Your task to perform on an android device: Open ESPN.com Image 0: 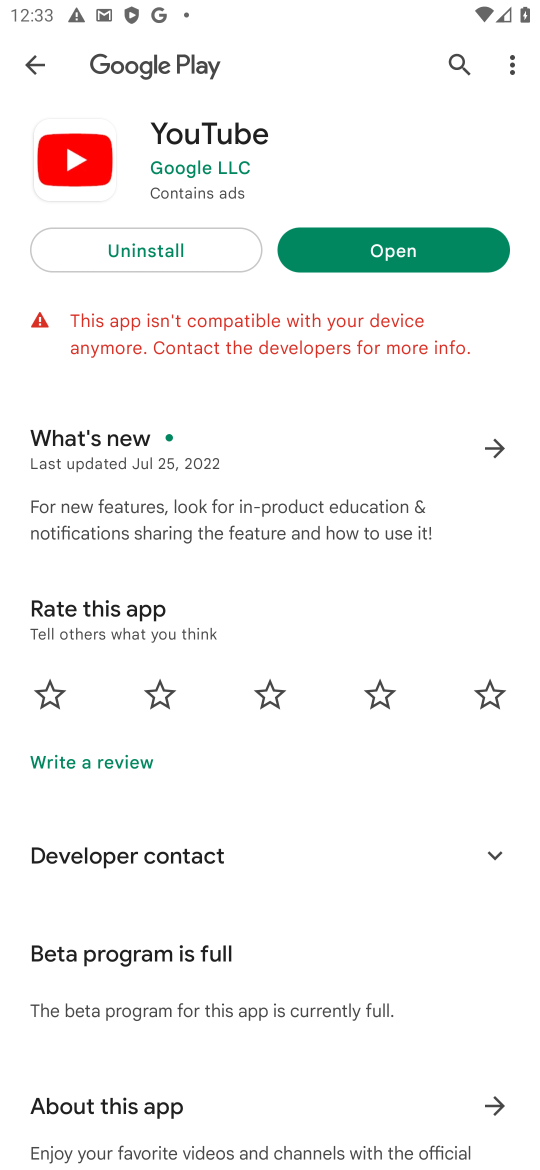
Step 0: task complete